Your task to perform on an android device: Go to Wikipedia Image 0: 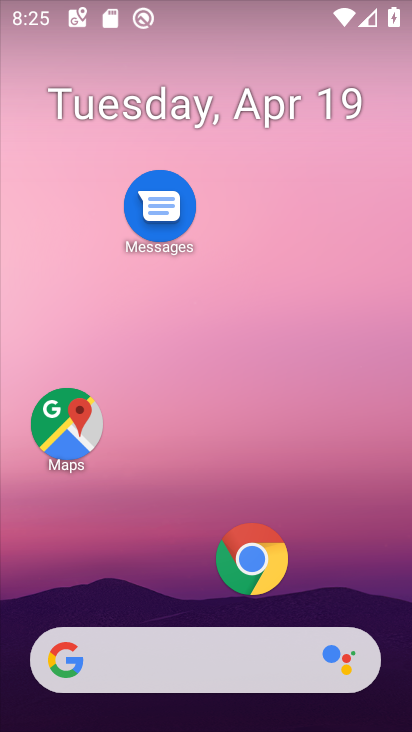
Step 0: click (249, 563)
Your task to perform on an android device: Go to Wikipedia Image 1: 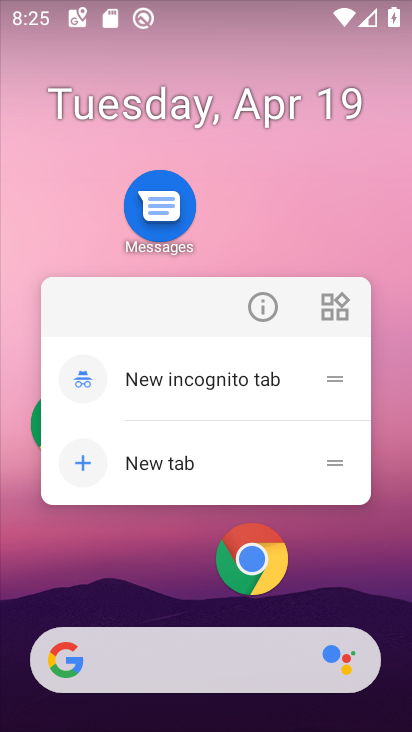
Step 1: click (249, 563)
Your task to perform on an android device: Go to Wikipedia Image 2: 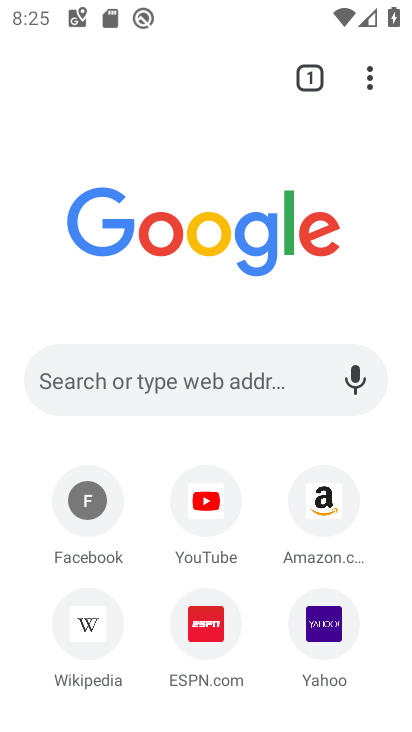
Step 2: click (92, 624)
Your task to perform on an android device: Go to Wikipedia Image 3: 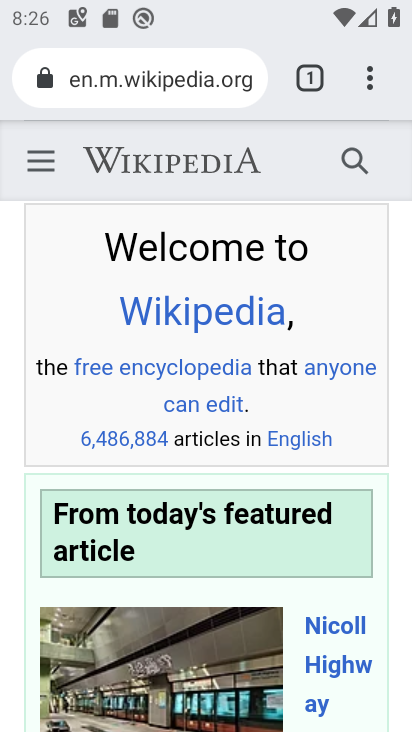
Step 3: task complete